Your task to perform on an android device: Find coffee shops on Maps Image 0: 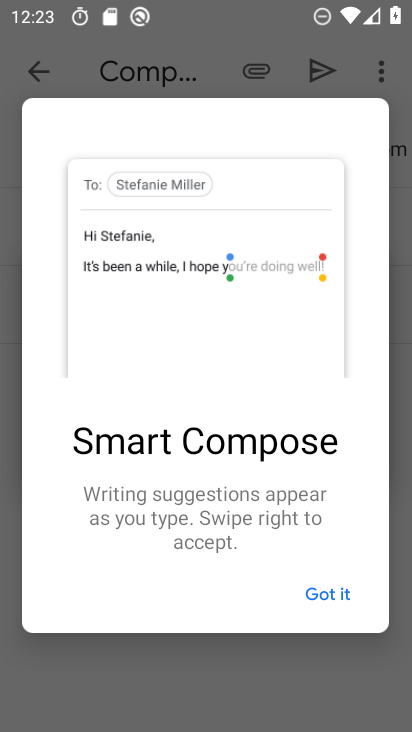
Step 0: press back button
Your task to perform on an android device: Find coffee shops on Maps Image 1: 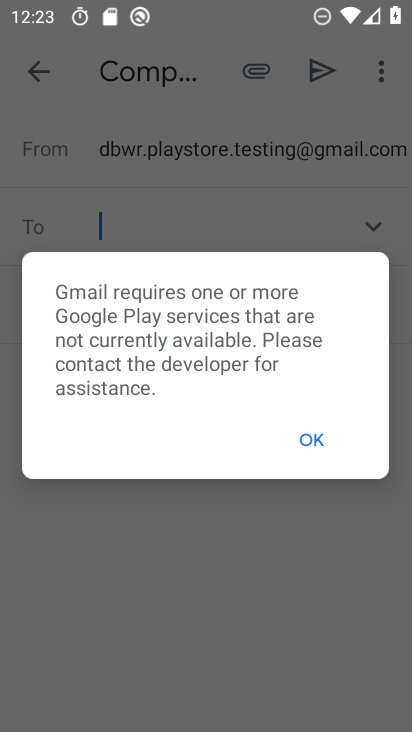
Step 1: press home button
Your task to perform on an android device: Find coffee shops on Maps Image 2: 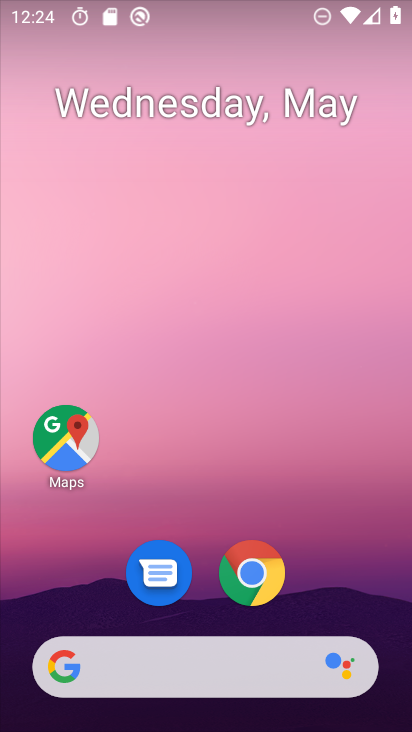
Step 2: drag from (369, 563) to (288, 135)
Your task to perform on an android device: Find coffee shops on Maps Image 3: 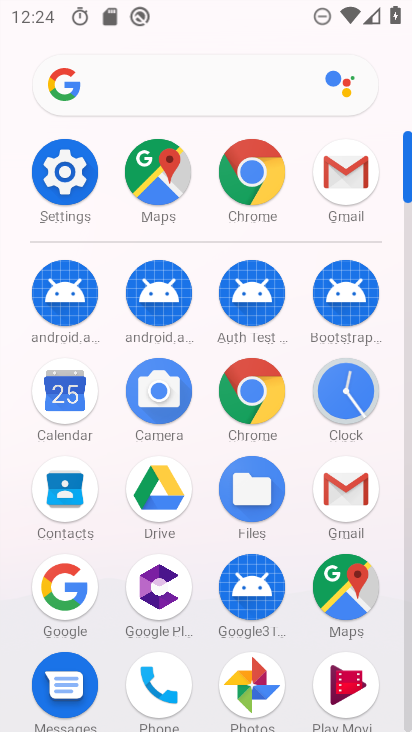
Step 3: click (343, 583)
Your task to perform on an android device: Find coffee shops on Maps Image 4: 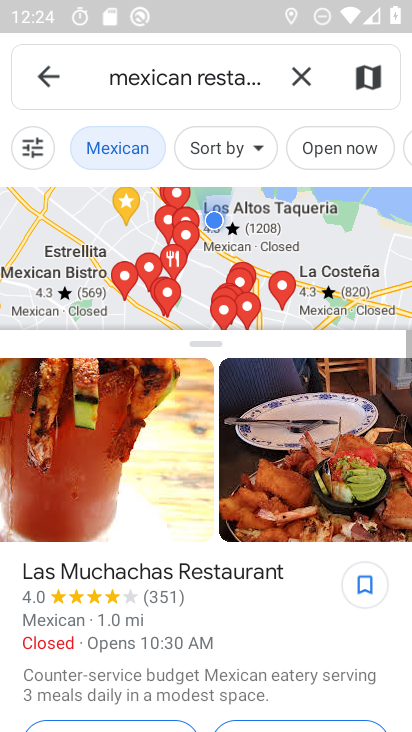
Step 4: click (283, 78)
Your task to perform on an android device: Find coffee shops on Maps Image 5: 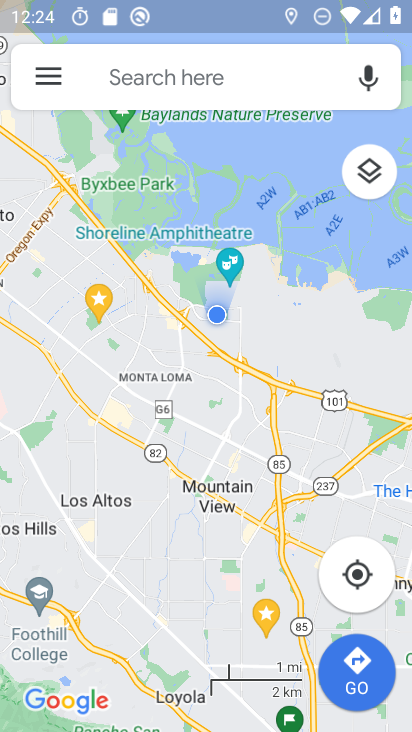
Step 5: click (266, 75)
Your task to perform on an android device: Find coffee shops on Maps Image 6: 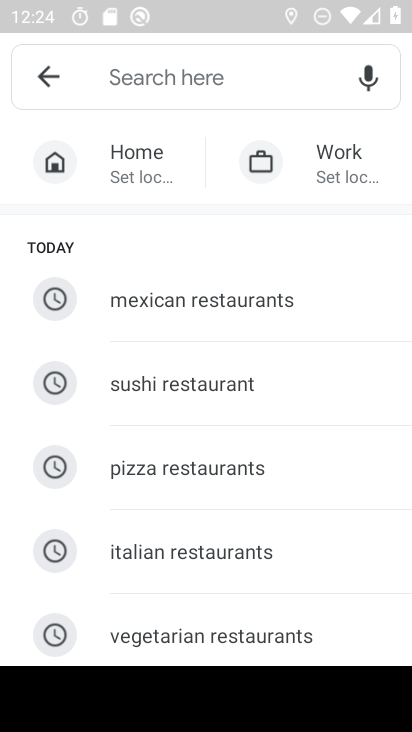
Step 6: type "coffee shops"
Your task to perform on an android device: Find coffee shops on Maps Image 7: 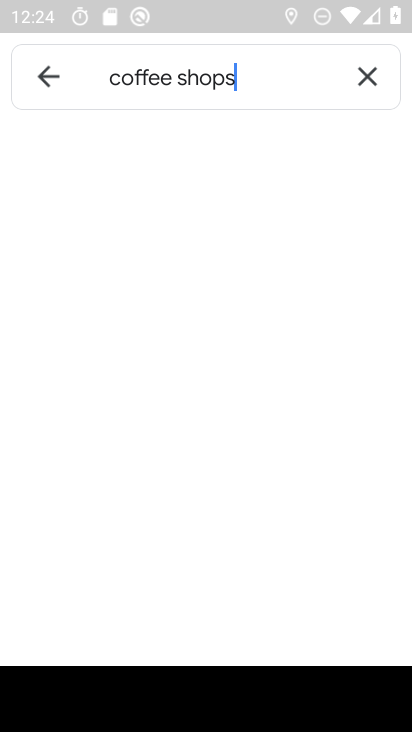
Step 7: type ""
Your task to perform on an android device: Find coffee shops on Maps Image 8: 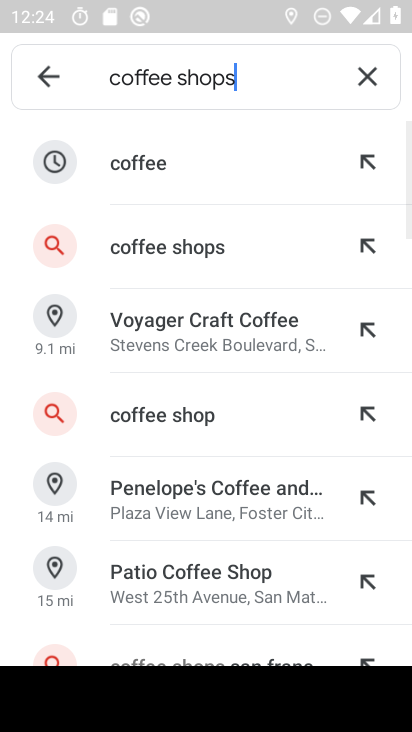
Step 8: click (179, 242)
Your task to perform on an android device: Find coffee shops on Maps Image 9: 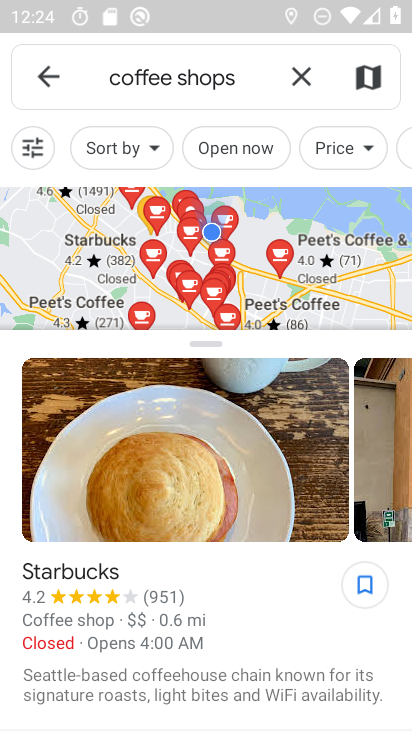
Step 9: task complete